Your task to perform on an android device: turn off location history Image 0: 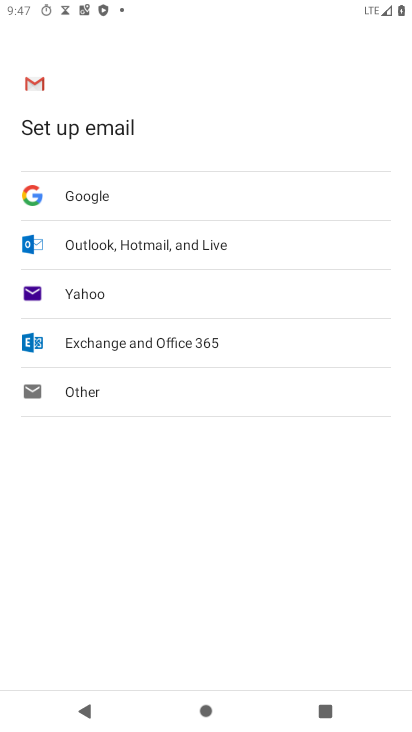
Step 0: press back button
Your task to perform on an android device: turn off location history Image 1: 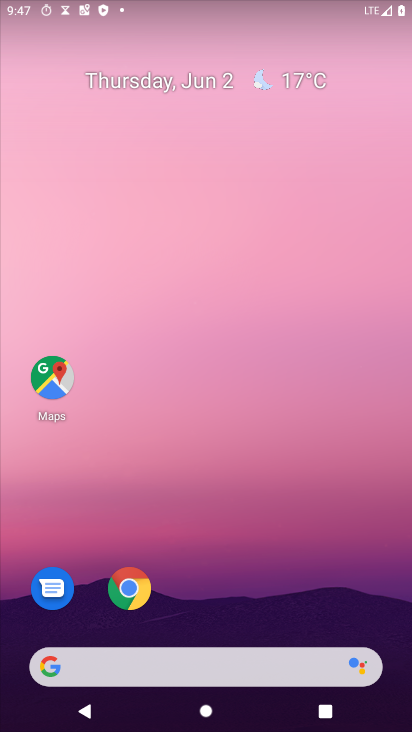
Step 1: drag from (259, 616) to (242, 100)
Your task to perform on an android device: turn off location history Image 2: 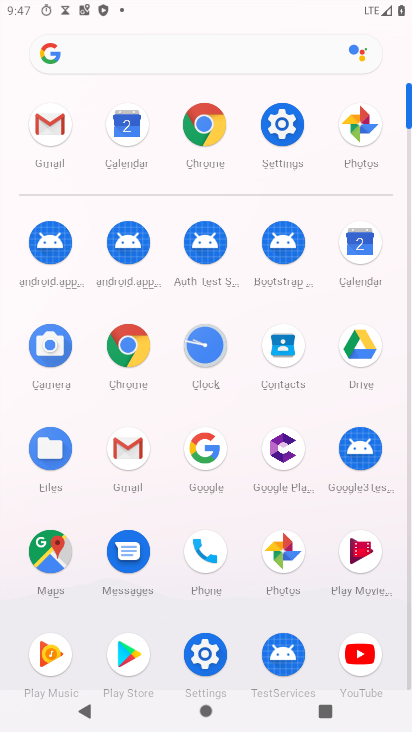
Step 2: click (278, 131)
Your task to perform on an android device: turn off location history Image 3: 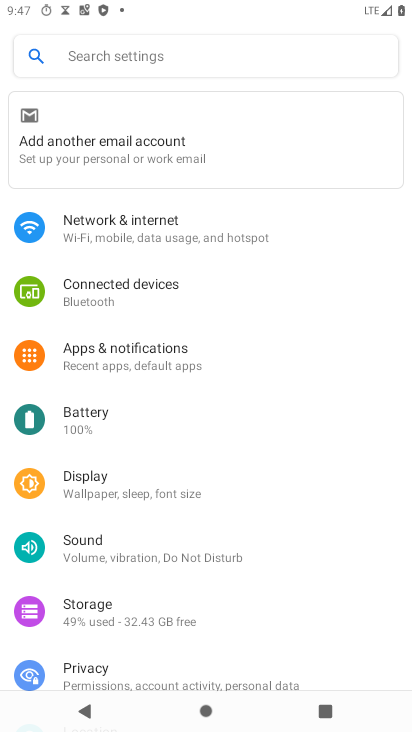
Step 3: drag from (136, 607) to (184, 109)
Your task to perform on an android device: turn off location history Image 4: 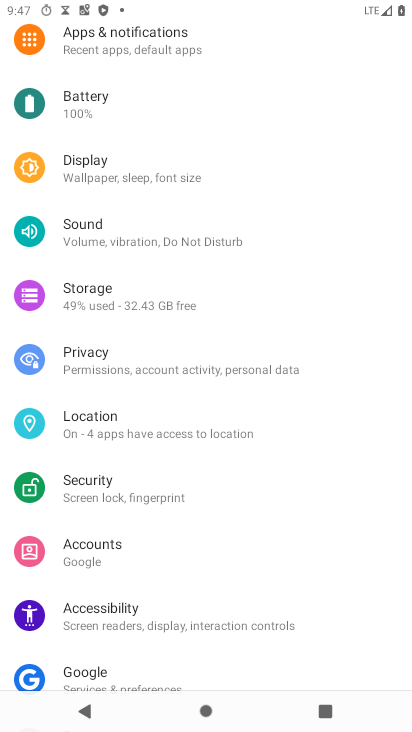
Step 4: click (104, 429)
Your task to perform on an android device: turn off location history Image 5: 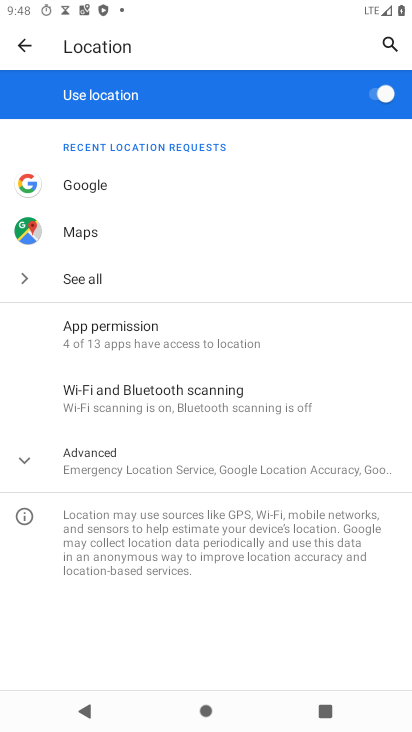
Step 5: click (168, 460)
Your task to perform on an android device: turn off location history Image 6: 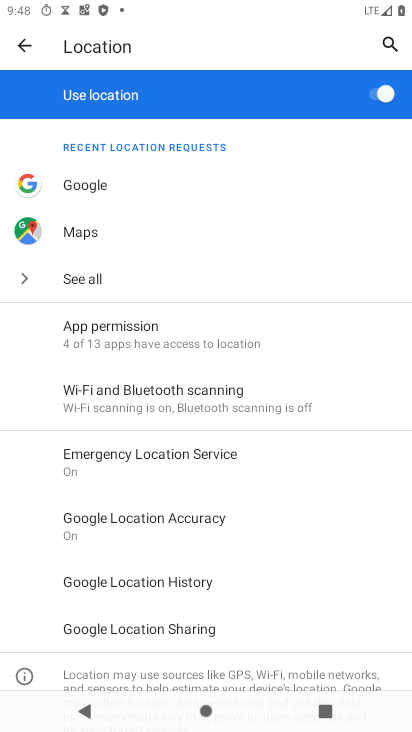
Step 6: click (153, 587)
Your task to perform on an android device: turn off location history Image 7: 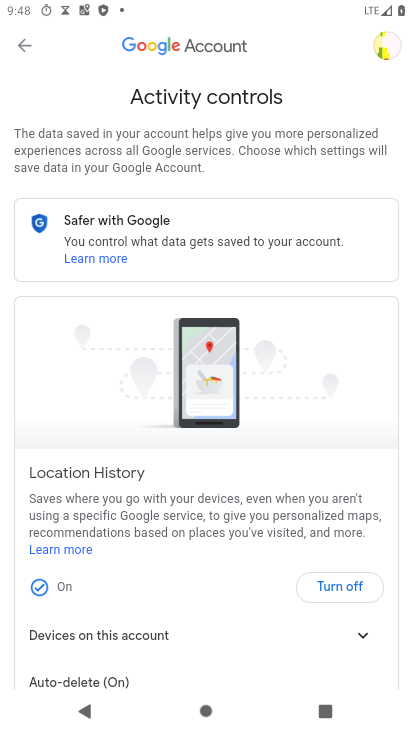
Step 7: click (352, 577)
Your task to perform on an android device: turn off location history Image 8: 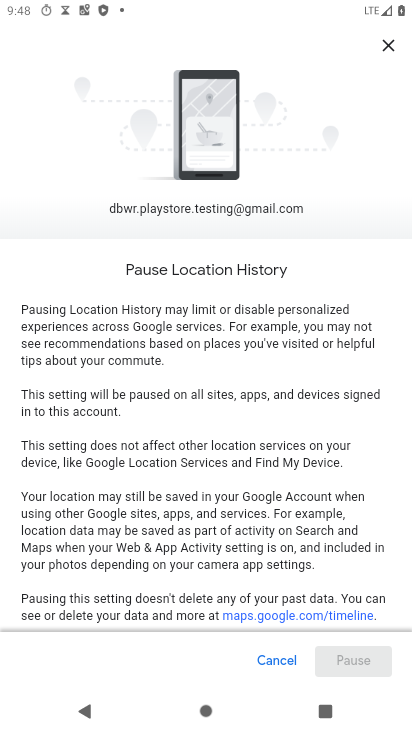
Step 8: drag from (303, 579) to (335, 19)
Your task to perform on an android device: turn off location history Image 9: 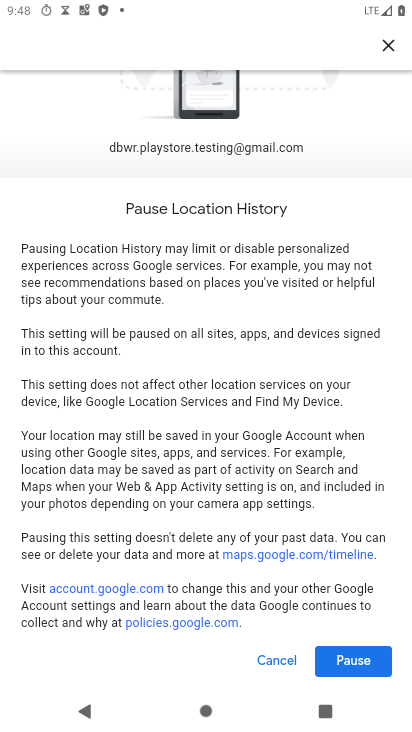
Step 9: drag from (298, 571) to (292, 101)
Your task to perform on an android device: turn off location history Image 10: 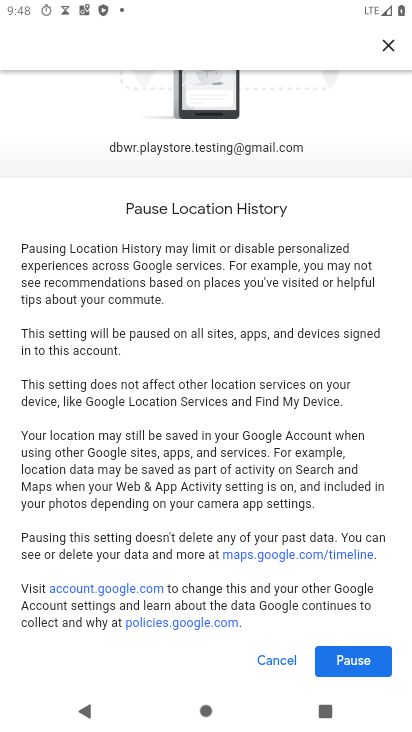
Step 10: click (359, 672)
Your task to perform on an android device: turn off location history Image 11: 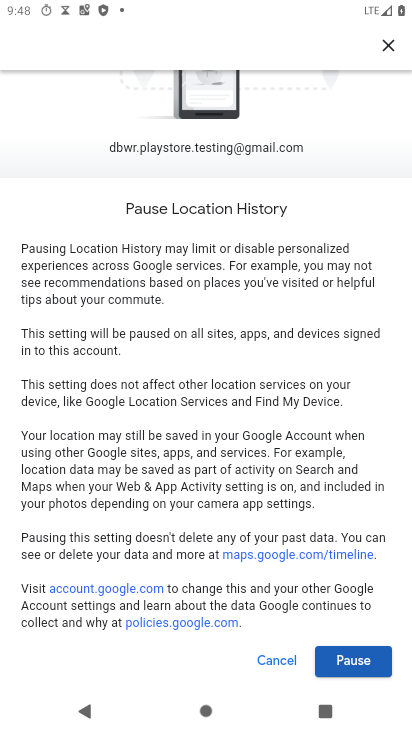
Step 11: click (347, 660)
Your task to perform on an android device: turn off location history Image 12: 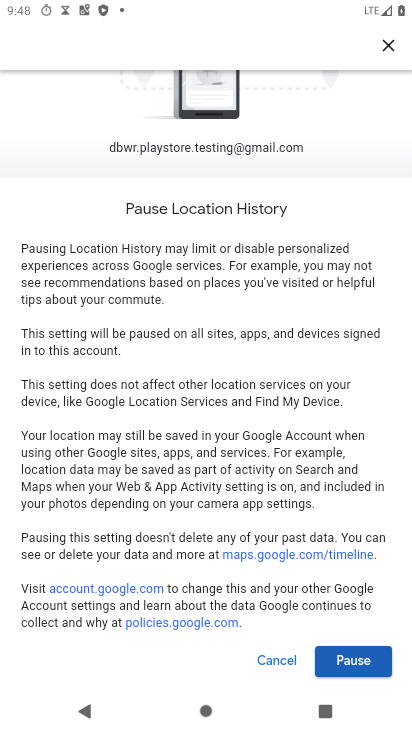
Step 12: click (361, 662)
Your task to perform on an android device: turn off location history Image 13: 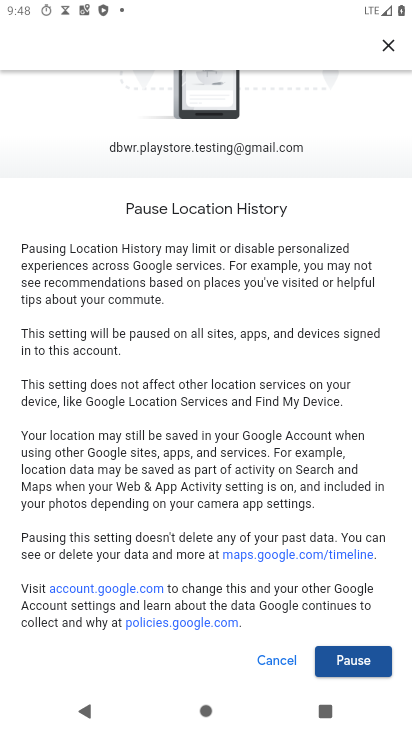
Step 13: task complete